Your task to perform on an android device: open app "Spotify: Music and Podcasts" (install if not already installed) Image 0: 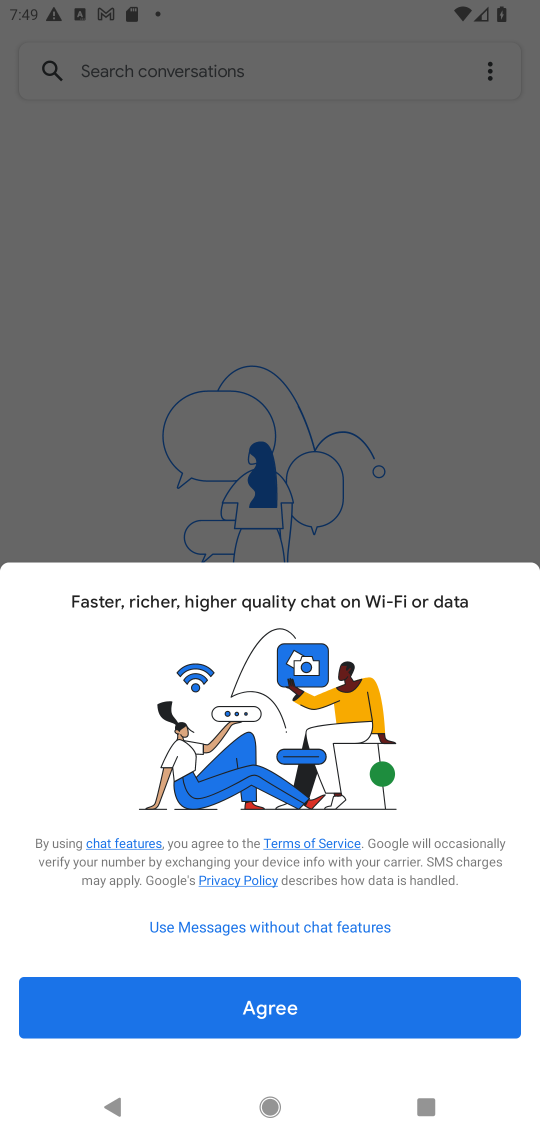
Step 0: press home button
Your task to perform on an android device: open app "Spotify: Music and Podcasts" (install if not already installed) Image 1: 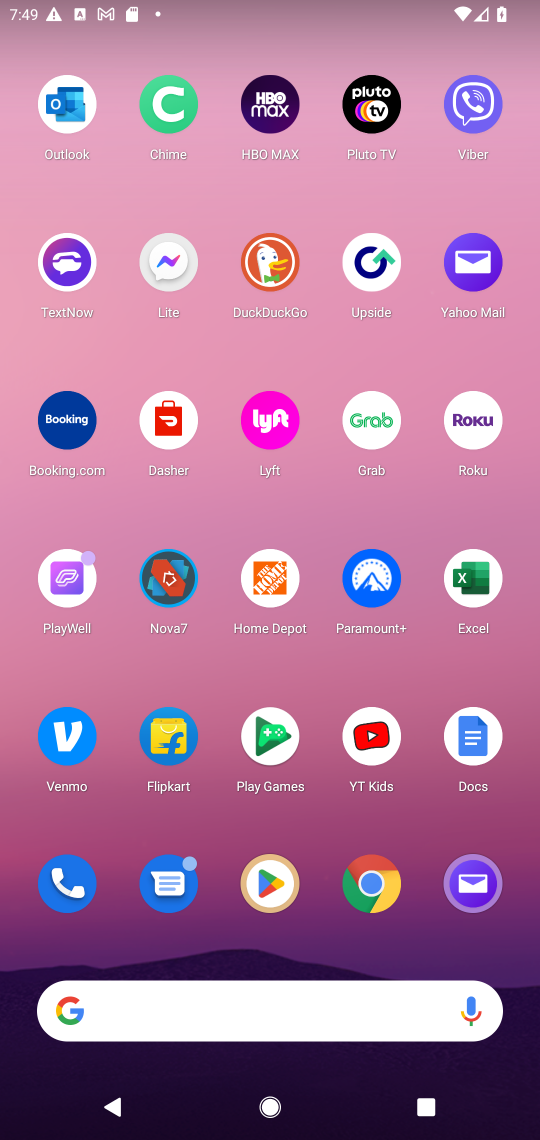
Step 1: click (246, 882)
Your task to perform on an android device: open app "Spotify: Music and Podcasts" (install if not already installed) Image 2: 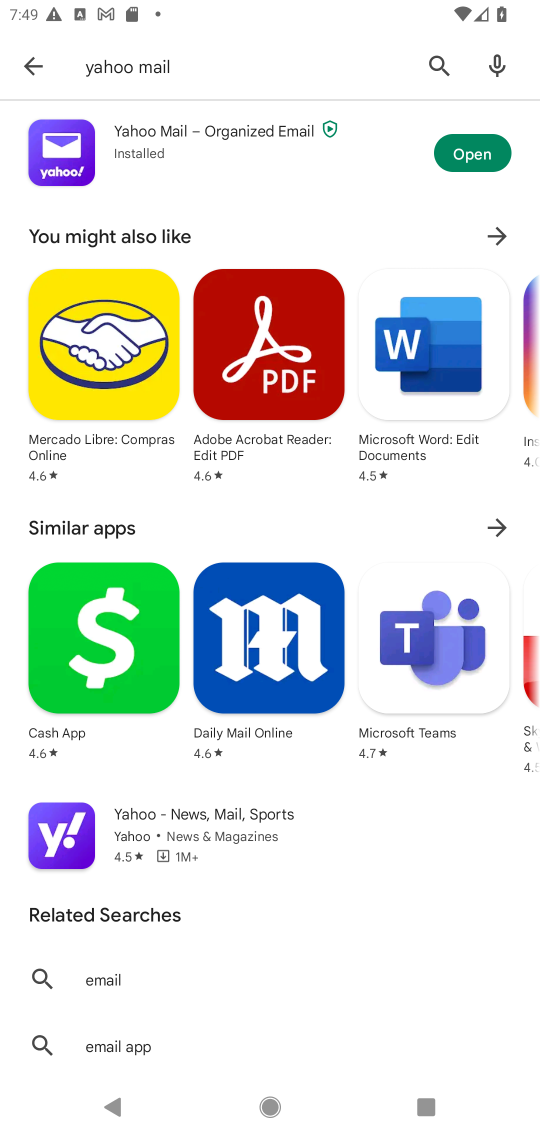
Step 2: click (427, 68)
Your task to perform on an android device: open app "Spotify: Music and Podcasts" (install if not already installed) Image 3: 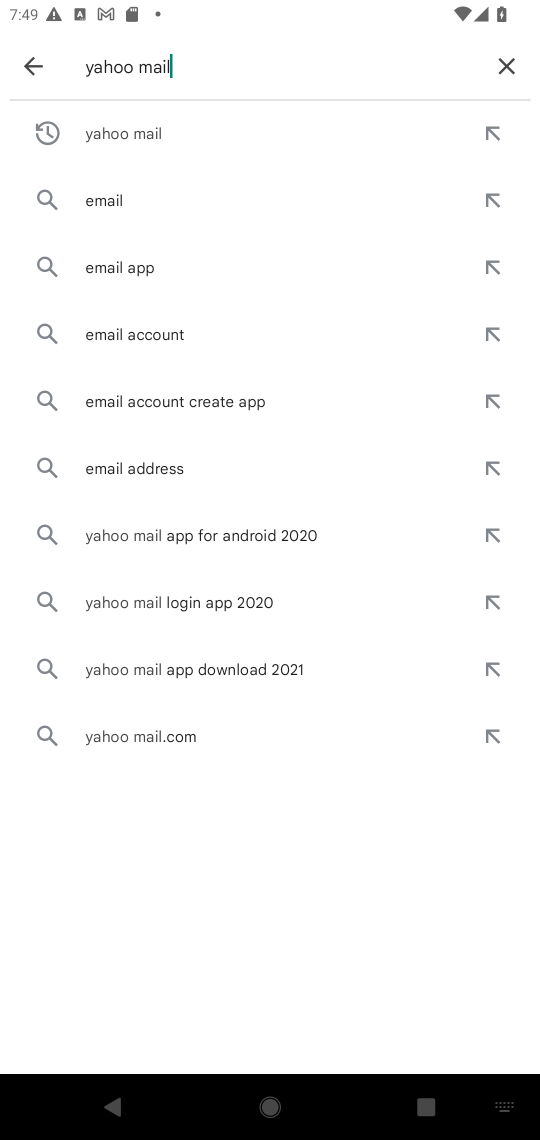
Step 3: click (486, 72)
Your task to perform on an android device: open app "Spotify: Music and Podcasts" (install if not already installed) Image 4: 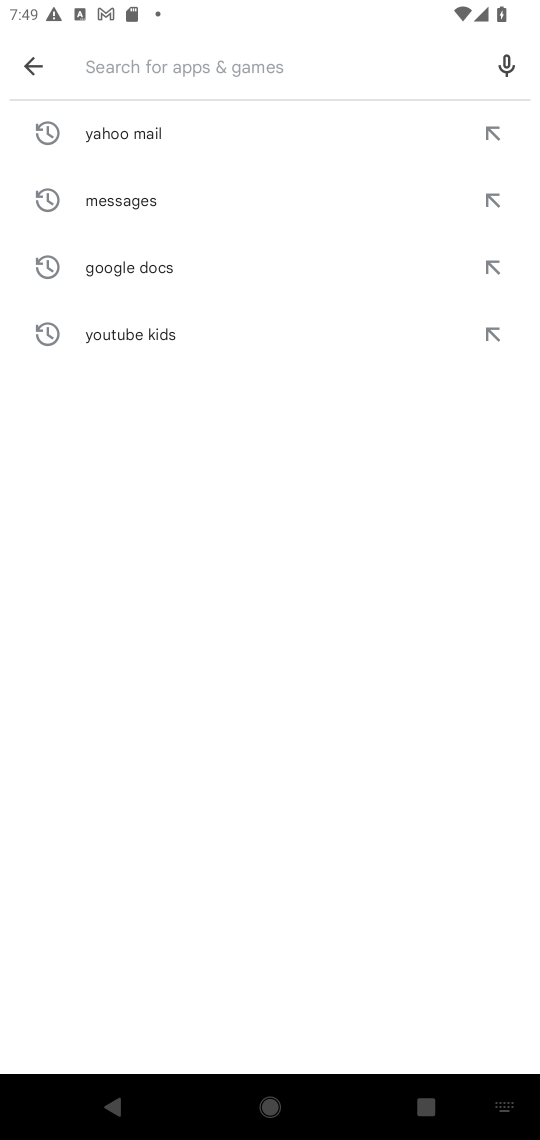
Step 4: type "Spotify: Music and Podcasts"
Your task to perform on an android device: open app "Spotify: Music and Podcasts" (install if not already installed) Image 5: 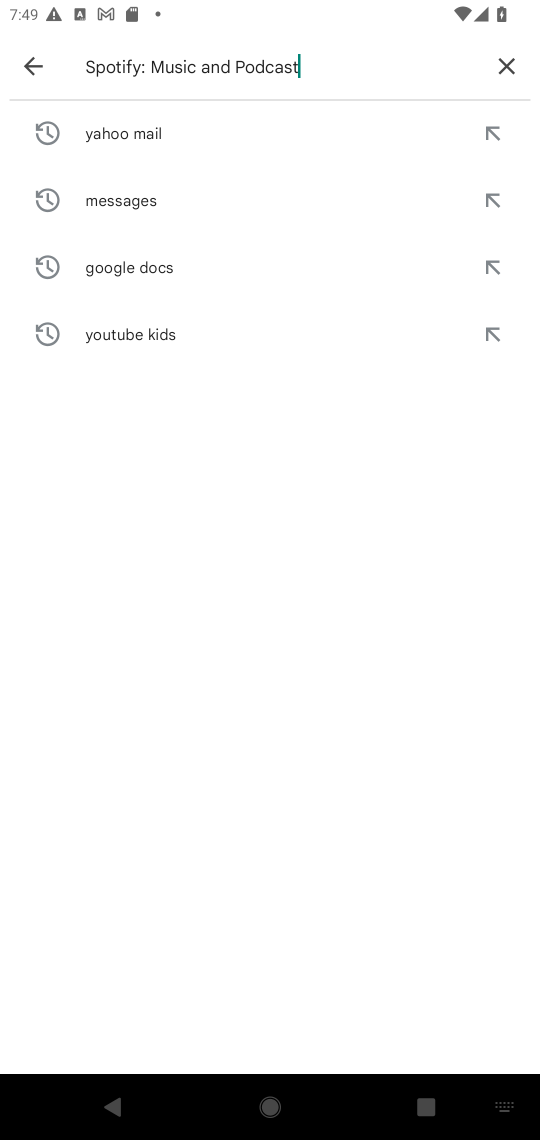
Step 5: type ""
Your task to perform on an android device: open app "Spotify: Music and Podcasts" (install if not already installed) Image 6: 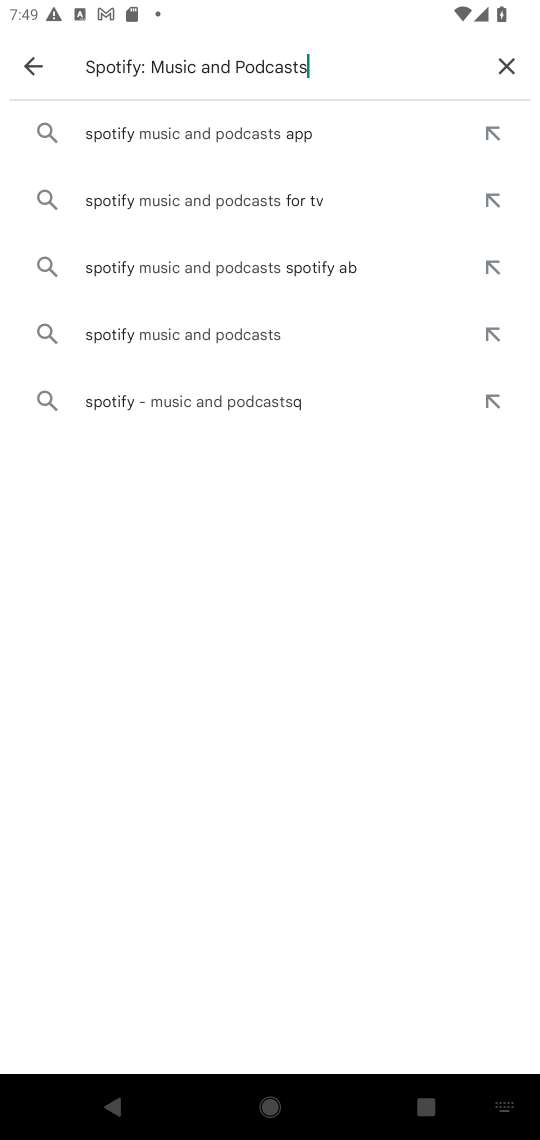
Step 6: click (121, 110)
Your task to perform on an android device: open app "Spotify: Music and Podcasts" (install if not already installed) Image 7: 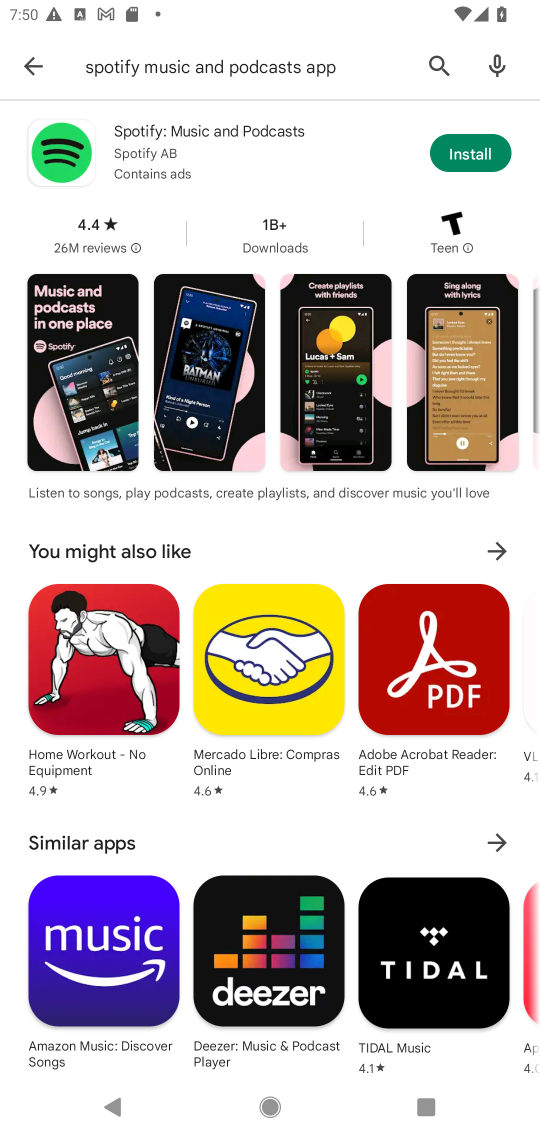
Step 7: click (483, 158)
Your task to perform on an android device: open app "Spotify: Music and Podcasts" (install if not already installed) Image 8: 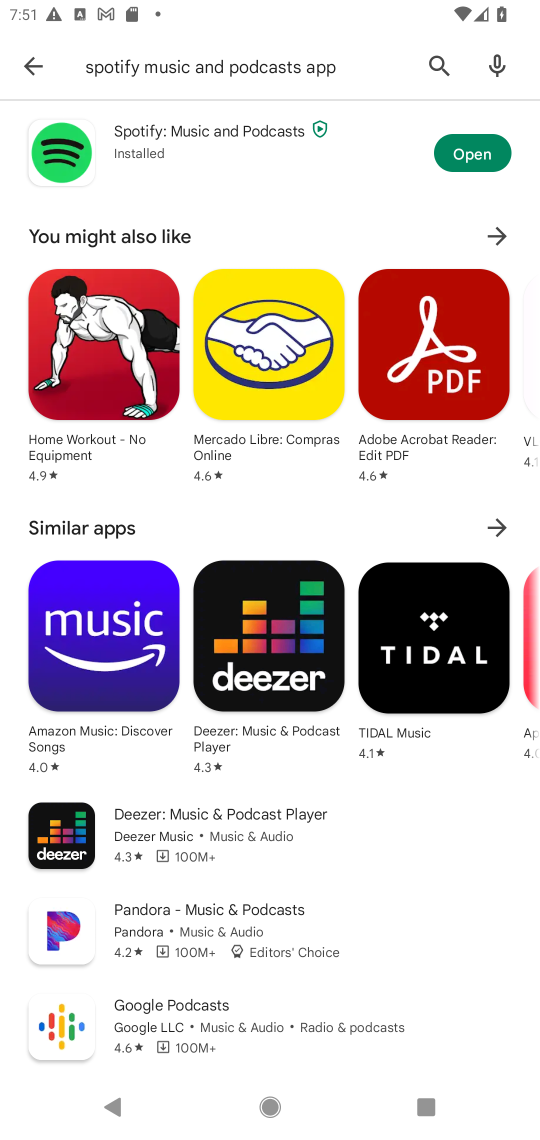
Step 8: click (475, 156)
Your task to perform on an android device: open app "Spotify: Music and Podcasts" (install if not already installed) Image 9: 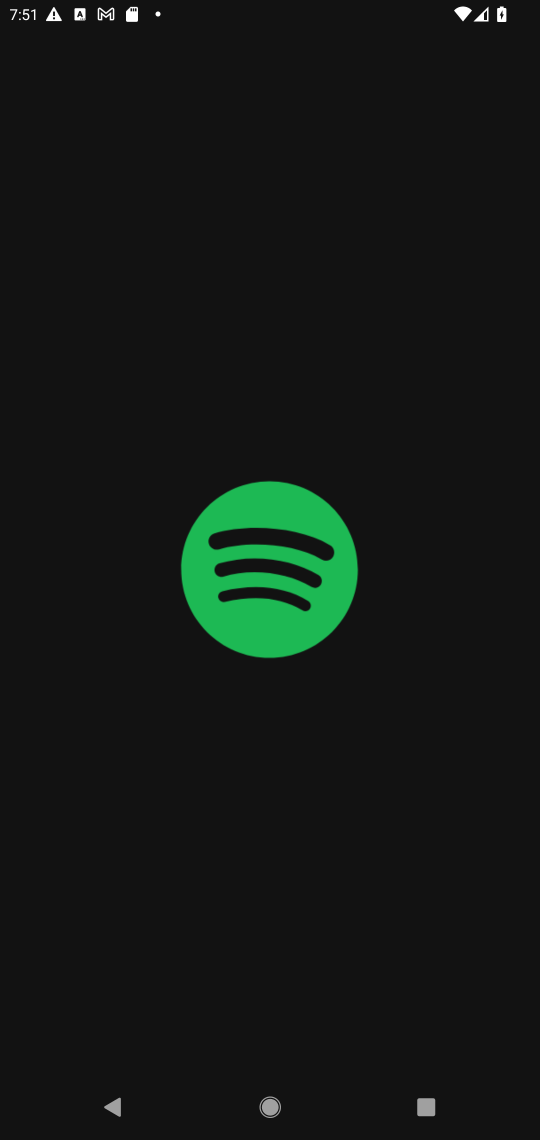
Step 9: task complete